Your task to perform on an android device: Open settings on Google Maps Image 0: 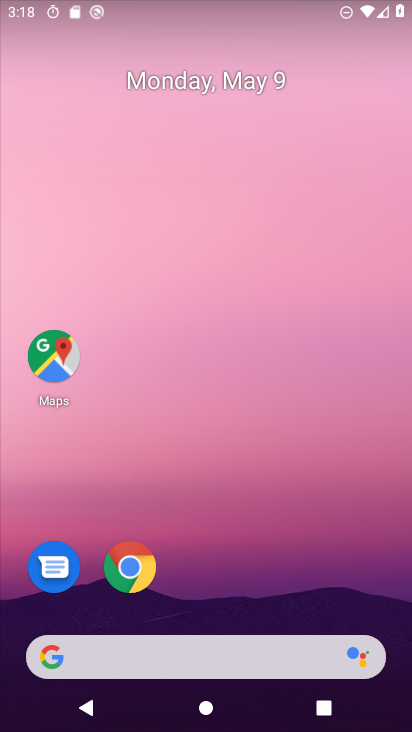
Step 0: click (51, 356)
Your task to perform on an android device: Open settings on Google Maps Image 1: 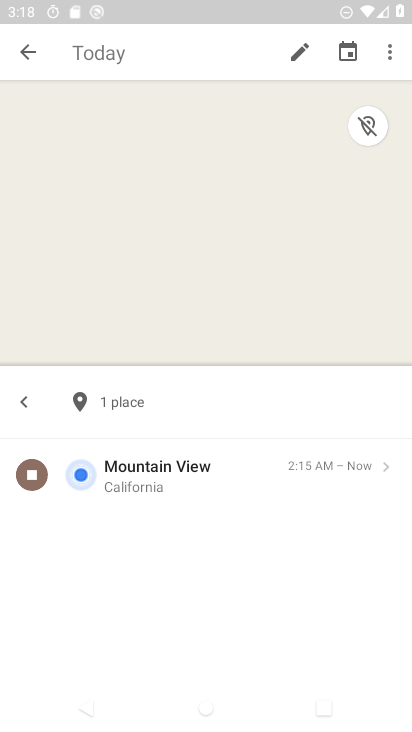
Step 1: click (32, 53)
Your task to perform on an android device: Open settings on Google Maps Image 2: 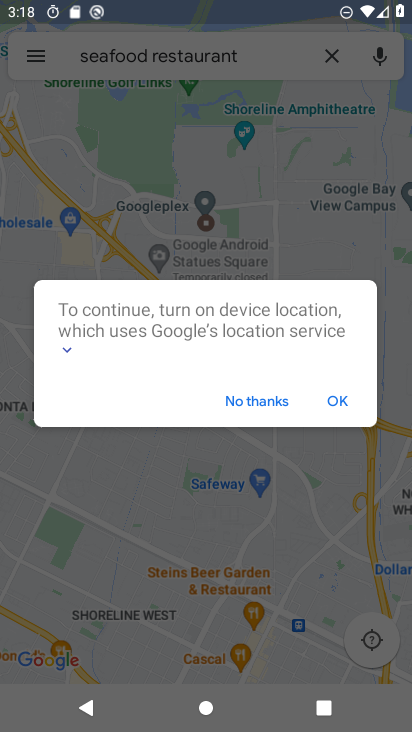
Step 2: click (340, 396)
Your task to perform on an android device: Open settings on Google Maps Image 3: 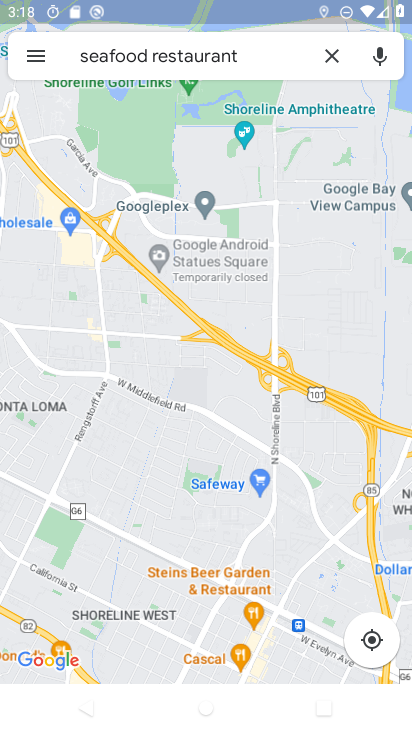
Step 3: click (30, 57)
Your task to perform on an android device: Open settings on Google Maps Image 4: 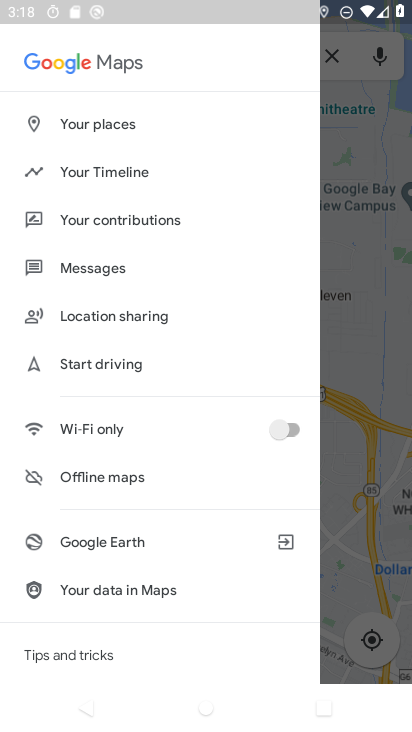
Step 4: drag from (137, 543) to (159, 219)
Your task to perform on an android device: Open settings on Google Maps Image 5: 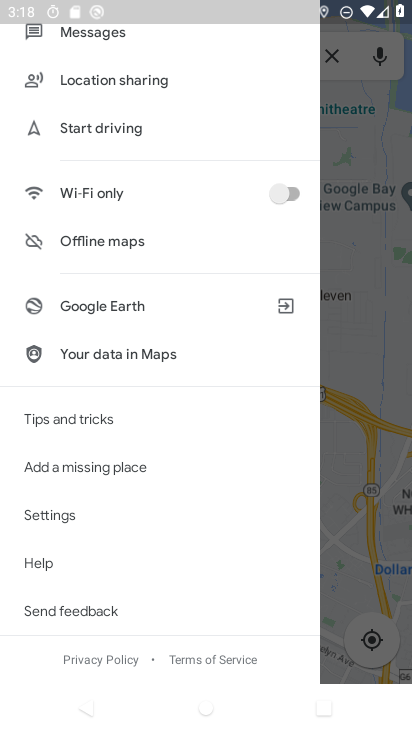
Step 5: click (59, 514)
Your task to perform on an android device: Open settings on Google Maps Image 6: 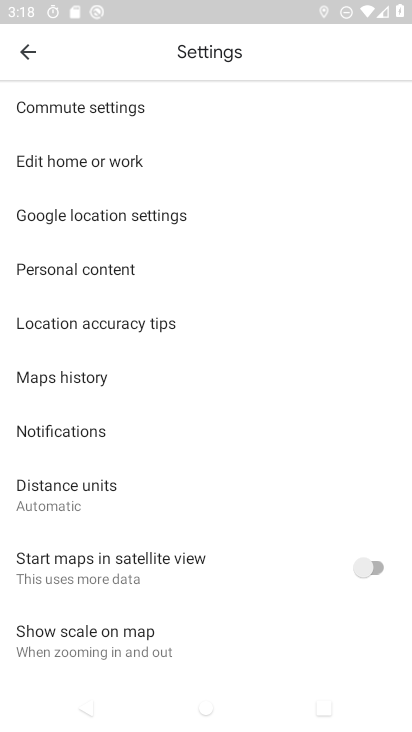
Step 6: task complete